Your task to perform on an android device: Go to location settings Image 0: 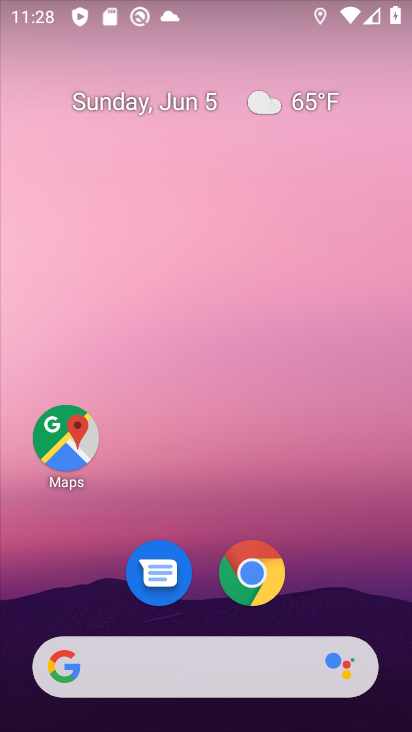
Step 0: press home button
Your task to perform on an android device: Go to location settings Image 1: 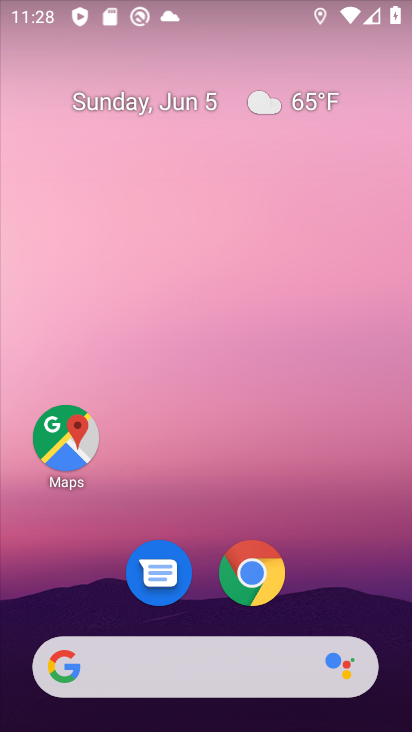
Step 1: drag from (204, 614) to (202, 87)
Your task to perform on an android device: Go to location settings Image 2: 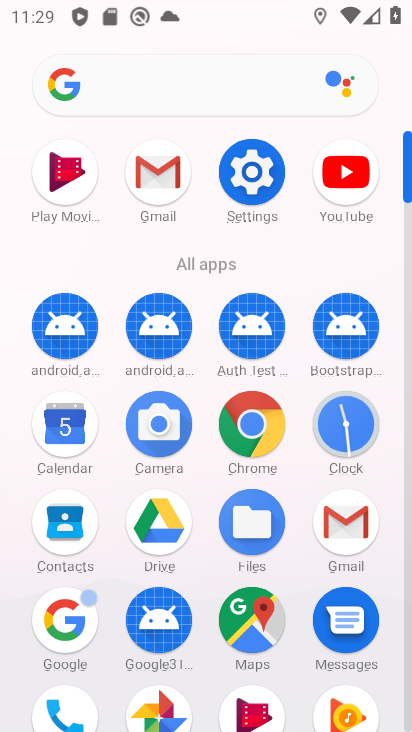
Step 2: click (251, 171)
Your task to perform on an android device: Go to location settings Image 3: 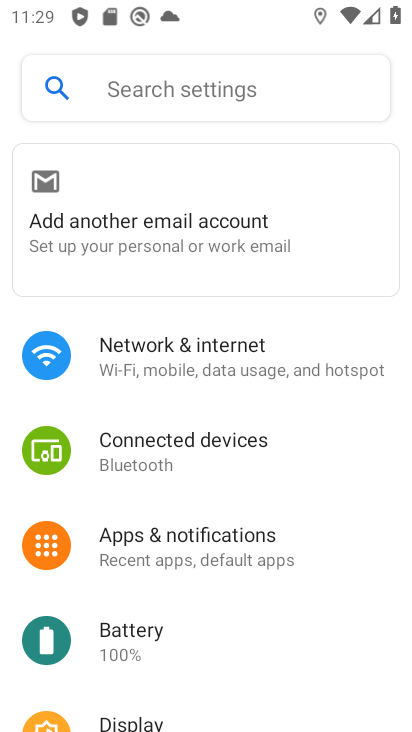
Step 3: drag from (241, 682) to (236, 216)
Your task to perform on an android device: Go to location settings Image 4: 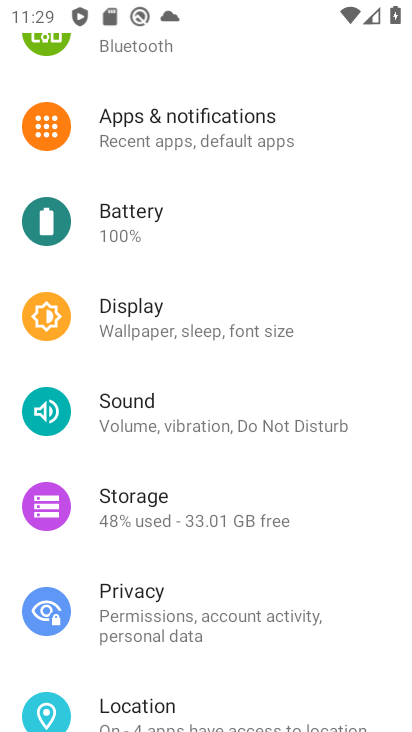
Step 4: click (202, 694)
Your task to perform on an android device: Go to location settings Image 5: 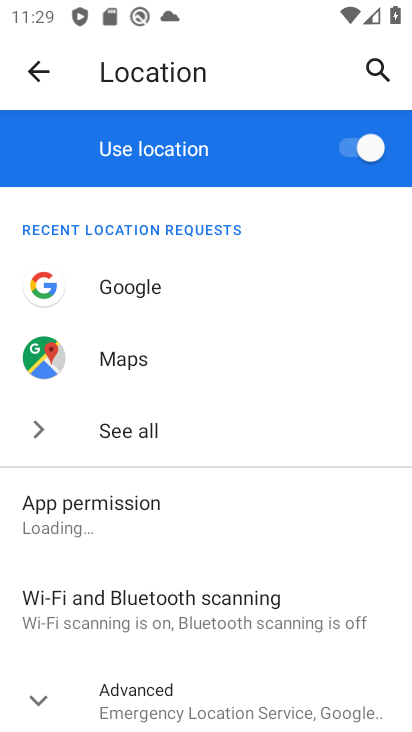
Step 5: click (37, 688)
Your task to perform on an android device: Go to location settings Image 6: 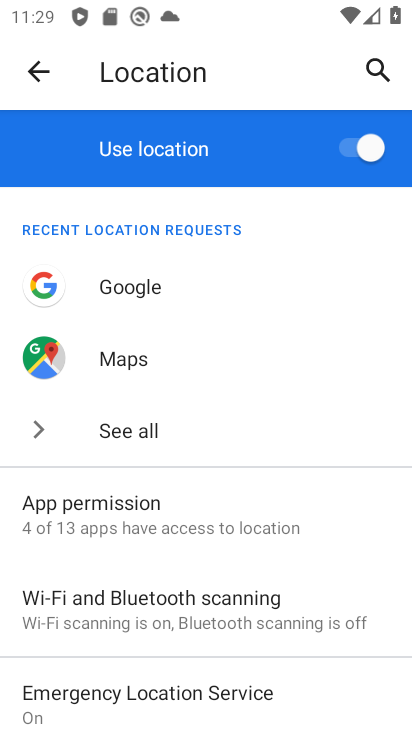
Step 6: task complete